Your task to perform on an android device: turn on improve location accuracy Image 0: 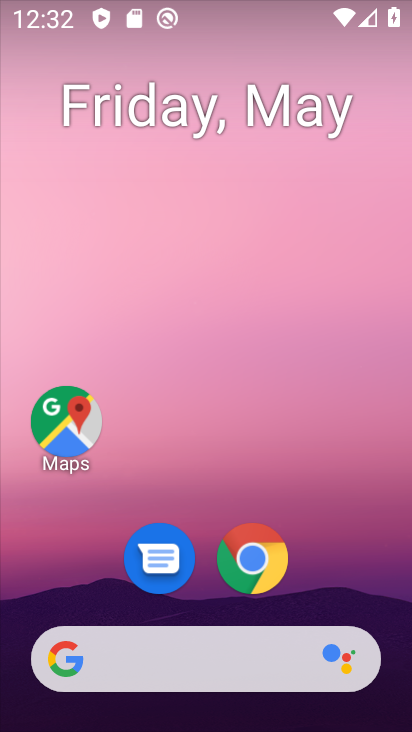
Step 0: drag from (372, 603) to (258, 84)
Your task to perform on an android device: turn on improve location accuracy Image 1: 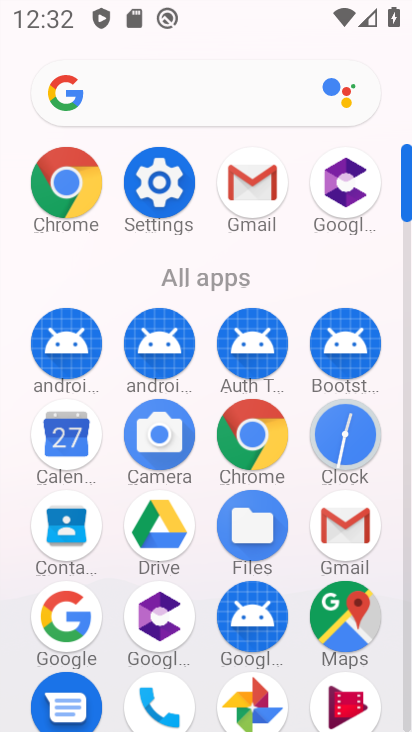
Step 1: click (181, 198)
Your task to perform on an android device: turn on improve location accuracy Image 2: 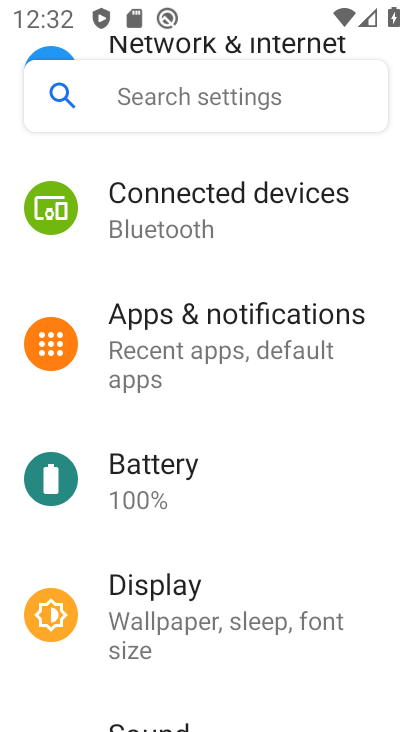
Step 2: drag from (259, 629) to (254, 234)
Your task to perform on an android device: turn on improve location accuracy Image 3: 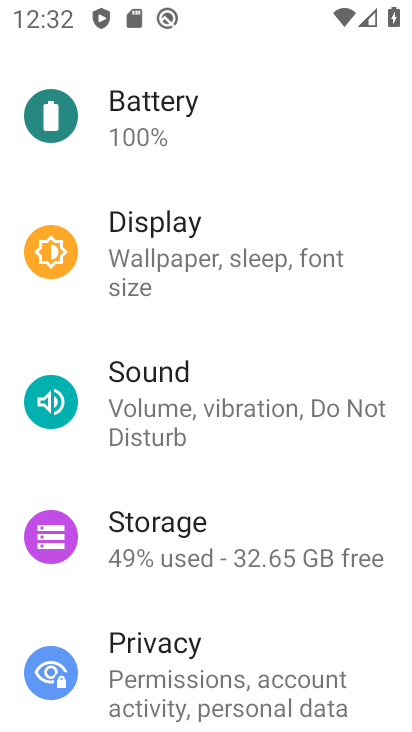
Step 3: drag from (259, 590) to (259, 227)
Your task to perform on an android device: turn on improve location accuracy Image 4: 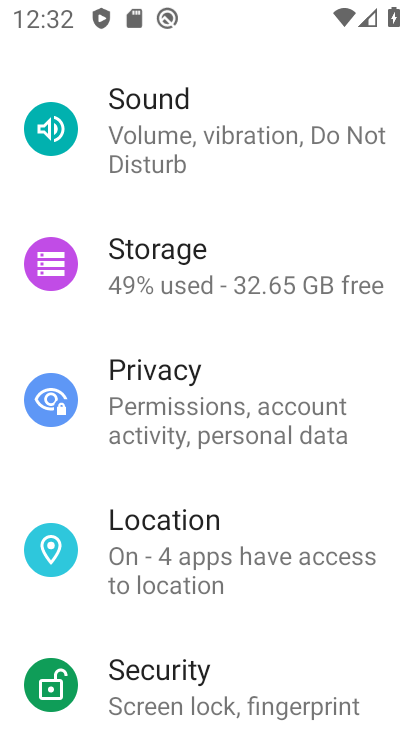
Step 4: click (247, 542)
Your task to perform on an android device: turn on improve location accuracy Image 5: 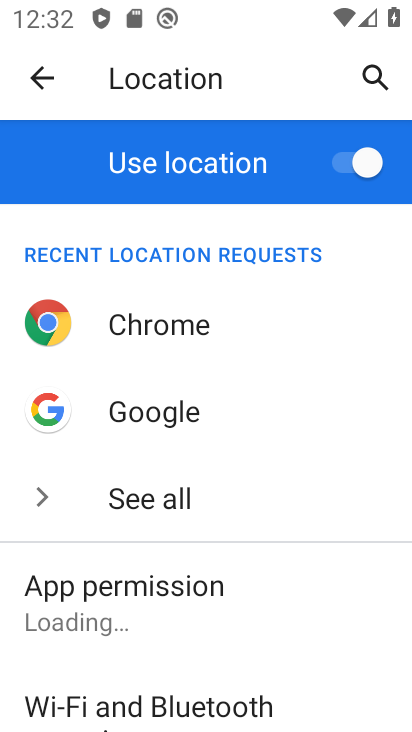
Step 5: drag from (272, 672) to (252, 376)
Your task to perform on an android device: turn on improve location accuracy Image 6: 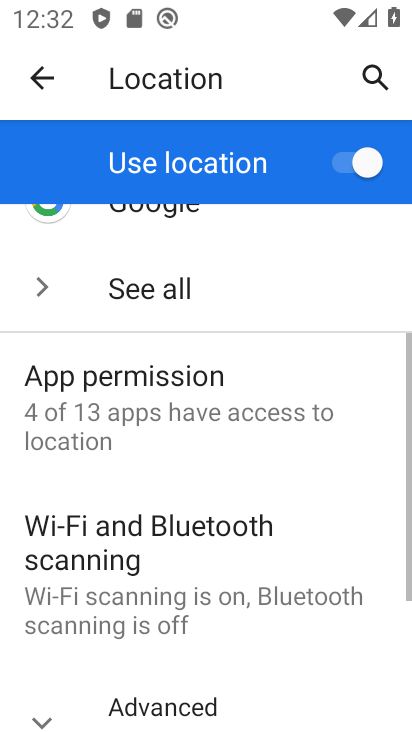
Step 6: click (242, 697)
Your task to perform on an android device: turn on improve location accuracy Image 7: 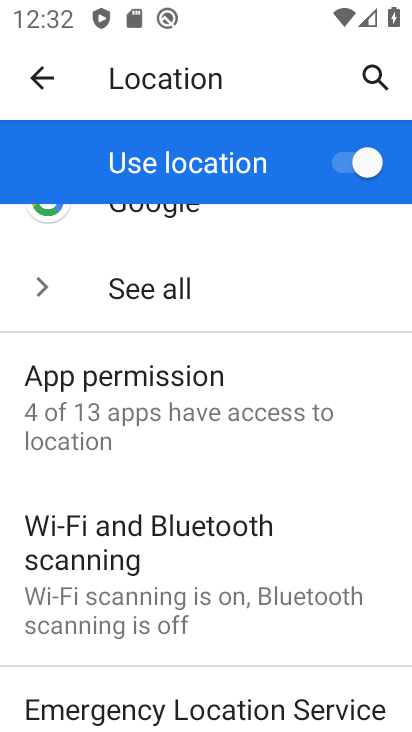
Step 7: drag from (242, 697) to (229, 415)
Your task to perform on an android device: turn on improve location accuracy Image 8: 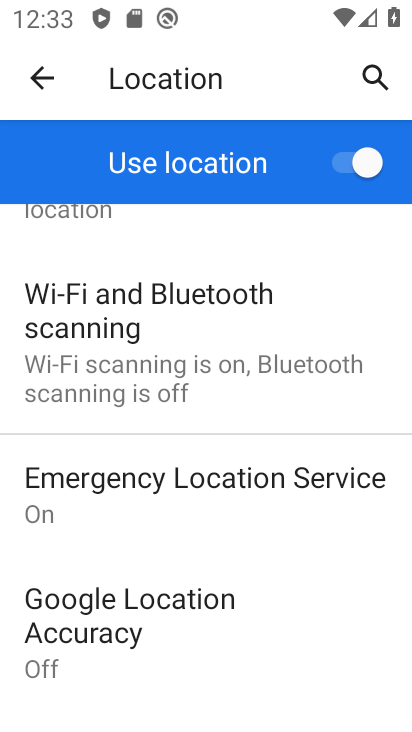
Step 8: click (209, 615)
Your task to perform on an android device: turn on improve location accuracy Image 9: 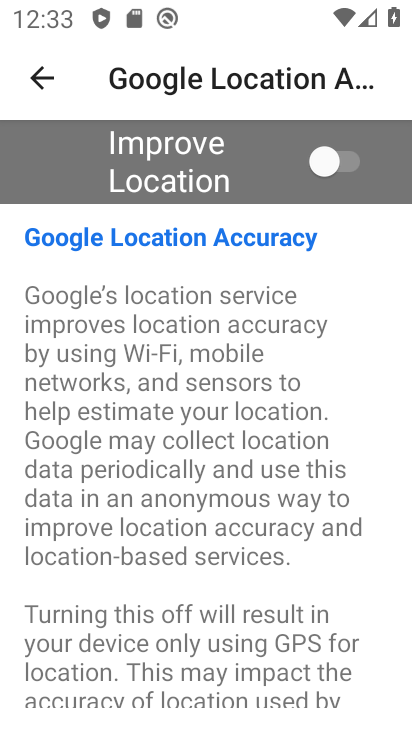
Step 9: click (320, 173)
Your task to perform on an android device: turn on improve location accuracy Image 10: 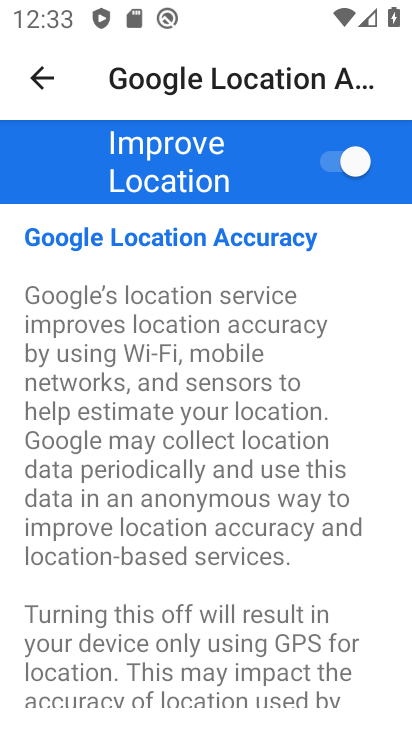
Step 10: task complete